Your task to perform on an android device: change the upload size in google photos Image 0: 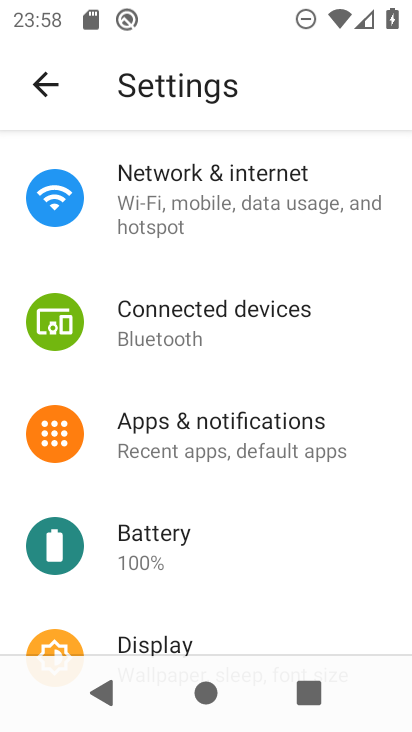
Step 0: press home button
Your task to perform on an android device: change the upload size in google photos Image 1: 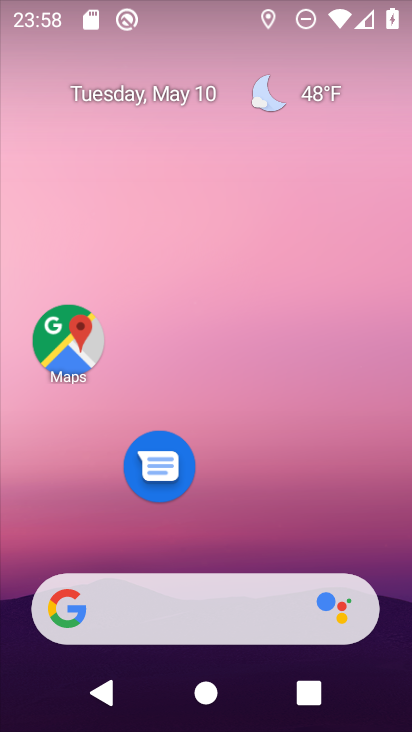
Step 1: drag from (261, 528) to (314, 53)
Your task to perform on an android device: change the upload size in google photos Image 2: 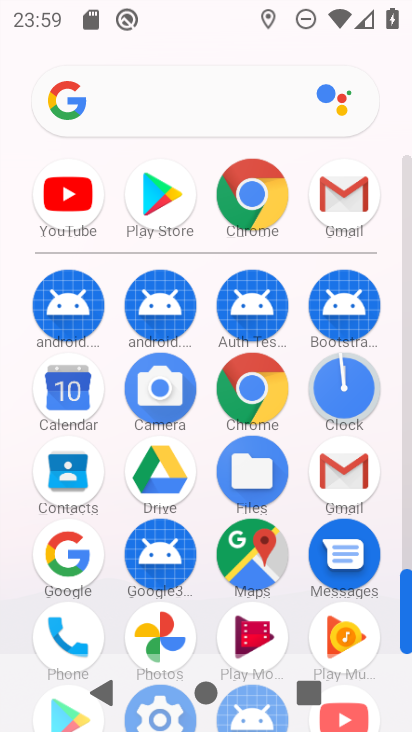
Step 2: click (154, 637)
Your task to perform on an android device: change the upload size in google photos Image 3: 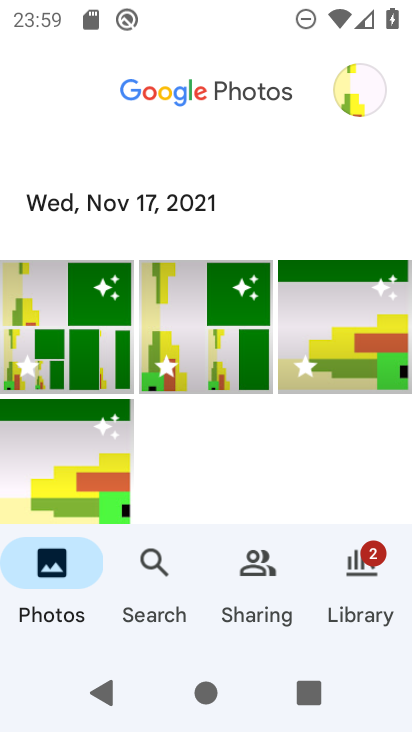
Step 3: click (354, 95)
Your task to perform on an android device: change the upload size in google photos Image 4: 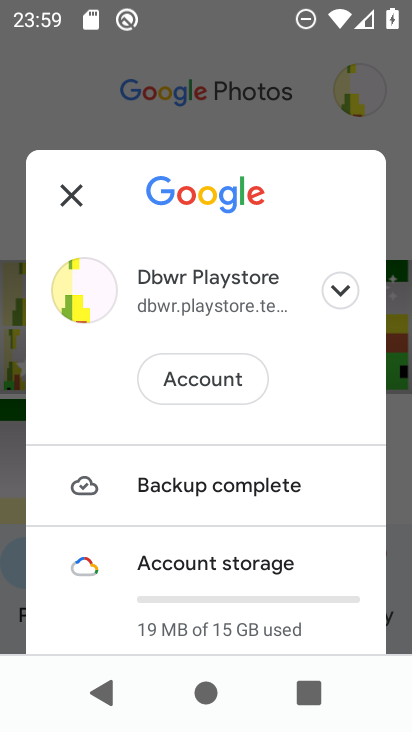
Step 4: drag from (265, 580) to (307, 254)
Your task to perform on an android device: change the upload size in google photos Image 5: 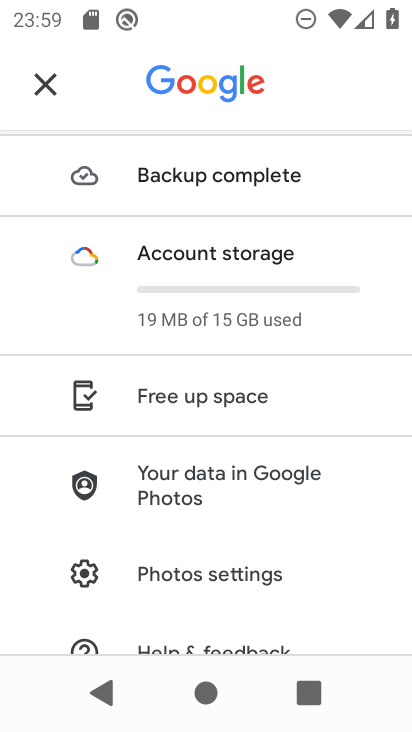
Step 5: click (196, 578)
Your task to perform on an android device: change the upload size in google photos Image 6: 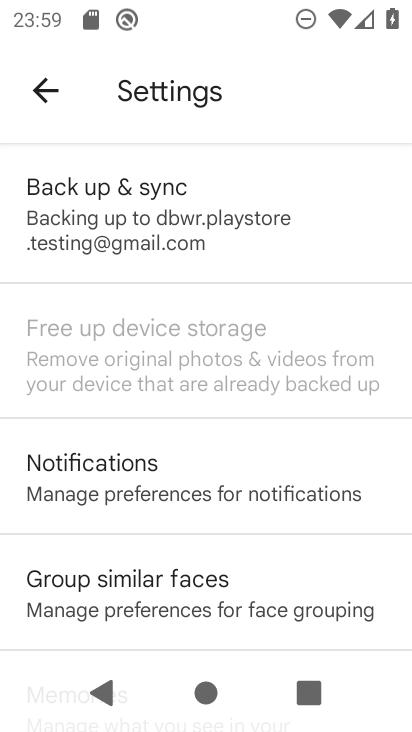
Step 6: drag from (127, 526) to (186, 260)
Your task to perform on an android device: change the upload size in google photos Image 7: 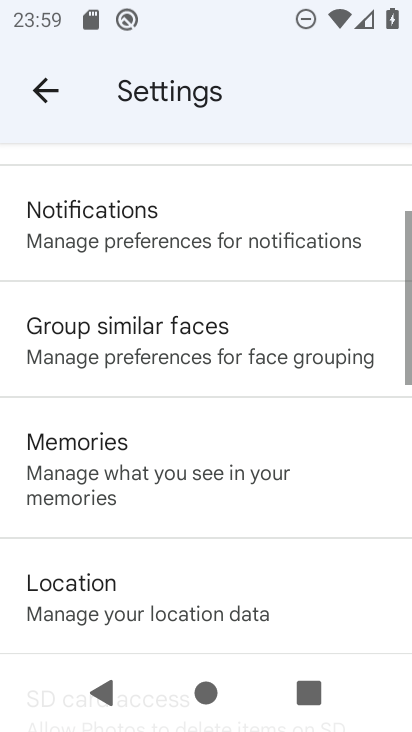
Step 7: drag from (188, 262) to (257, 500)
Your task to perform on an android device: change the upload size in google photos Image 8: 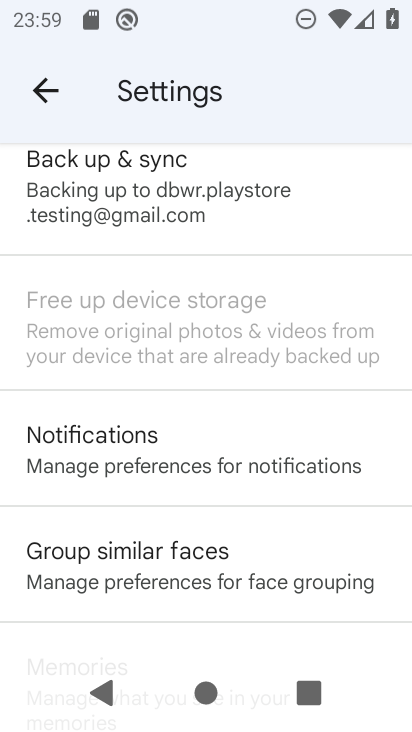
Step 8: click (238, 214)
Your task to perform on an android device: change the upload size in google photos Image 9: 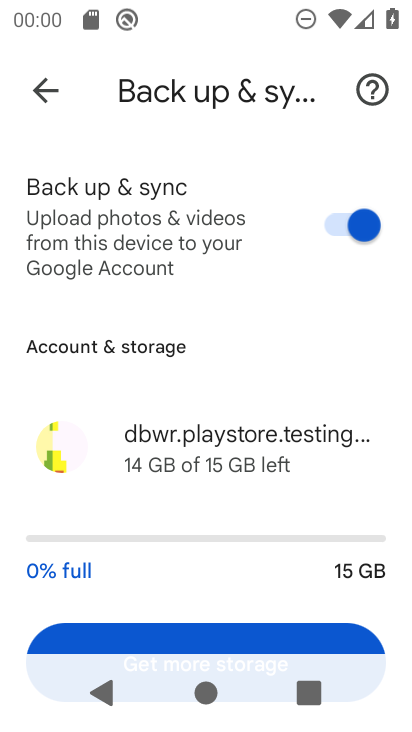
Step 9: drag from (281, 485) to (275, 284)
Your task to perform on an android device: change the upload size in google photos Image 10: 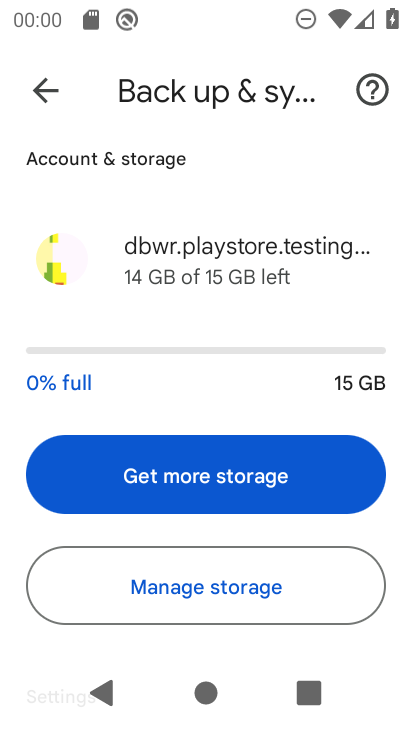
Step 10: drag from (256, 505) to (253, 273)
Your task to perform on an android device: change the upload size in google photos Image 11: 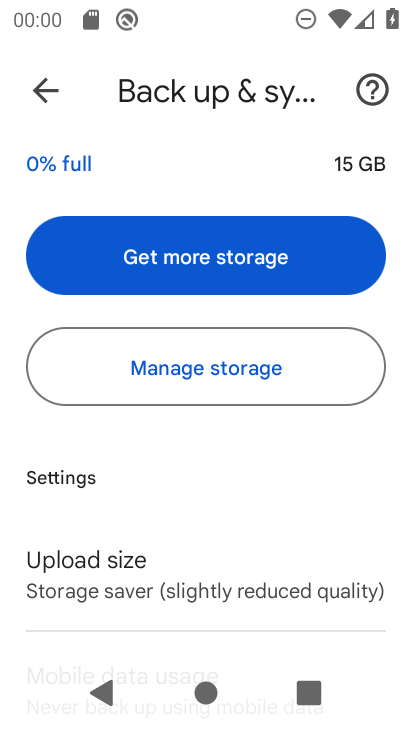
Step 11: click (231, 577)
Your task to perform on an android device: change the upload size in google photos Image 12: 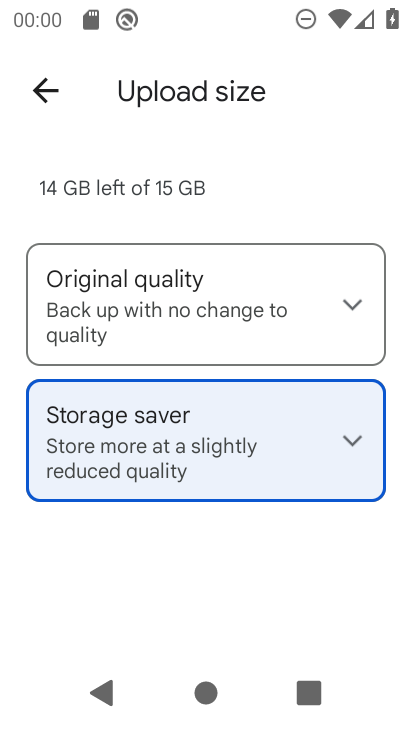
Step 12: click (187, 340)
Your task to perform on an android device: change the upload size in google photos Image 13: 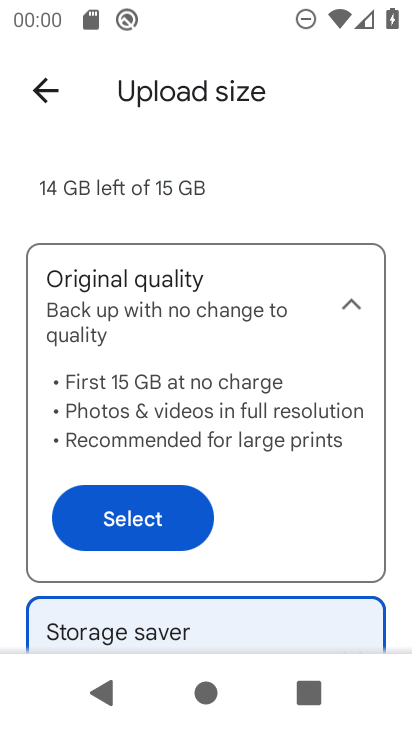
Step 13: click (96, 528)
Your task to perform on an android device: change the upload size in google photos Image 14: 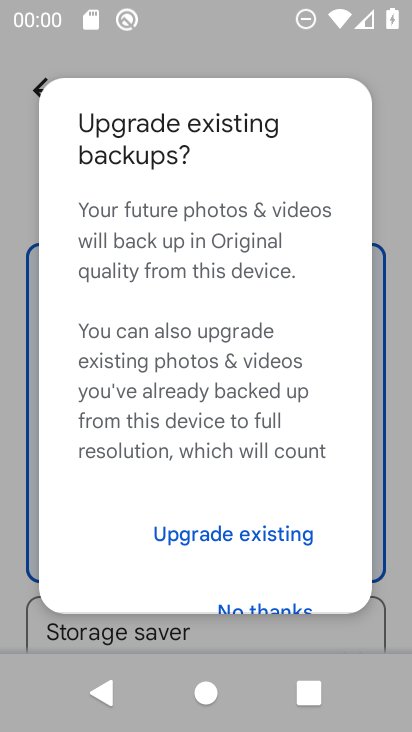
Step 14: task complete